Your task to perform on an android device: open app "TextNow: Call + Text Unlimited" (install if not already installed) Image 0: 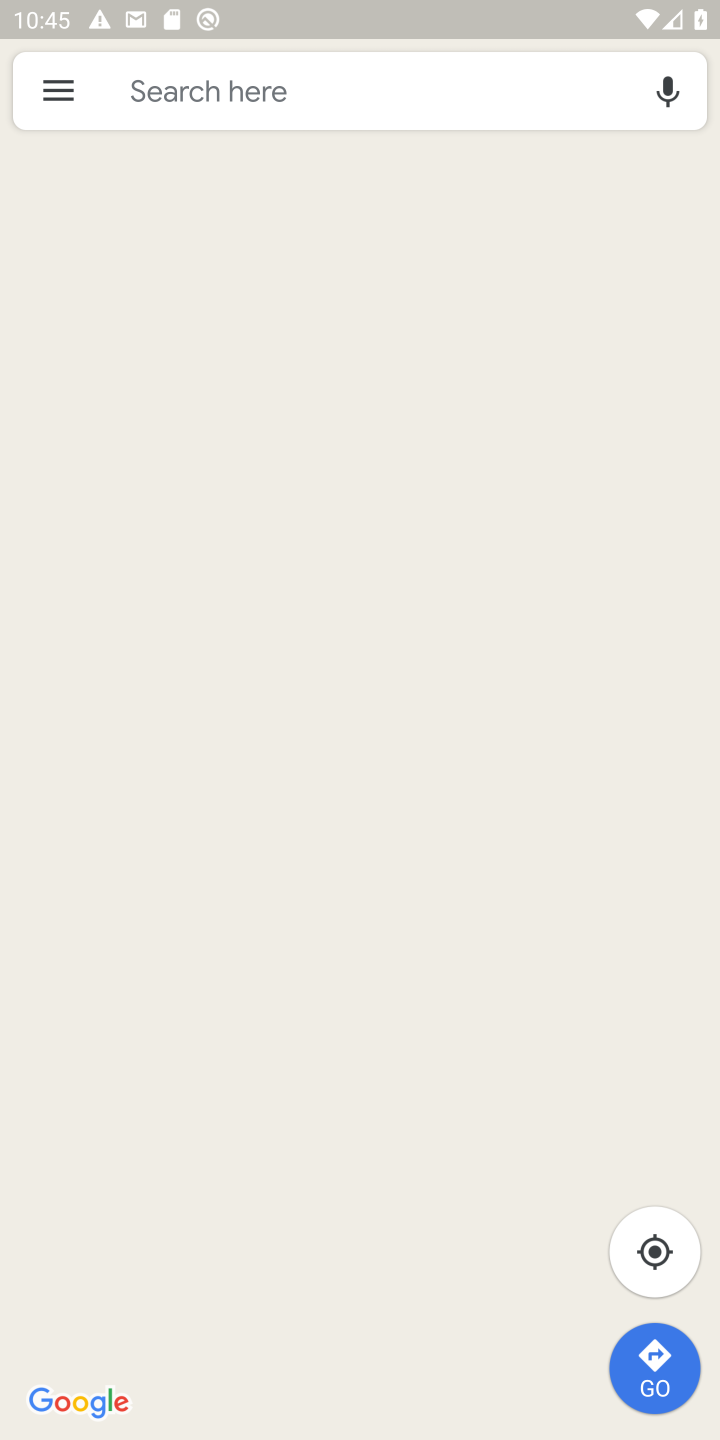
Step 0: press home button
Your task to perform on an android device: open app "TextNow: Call + Text Unlimited" (install if not already installed) Image 1: 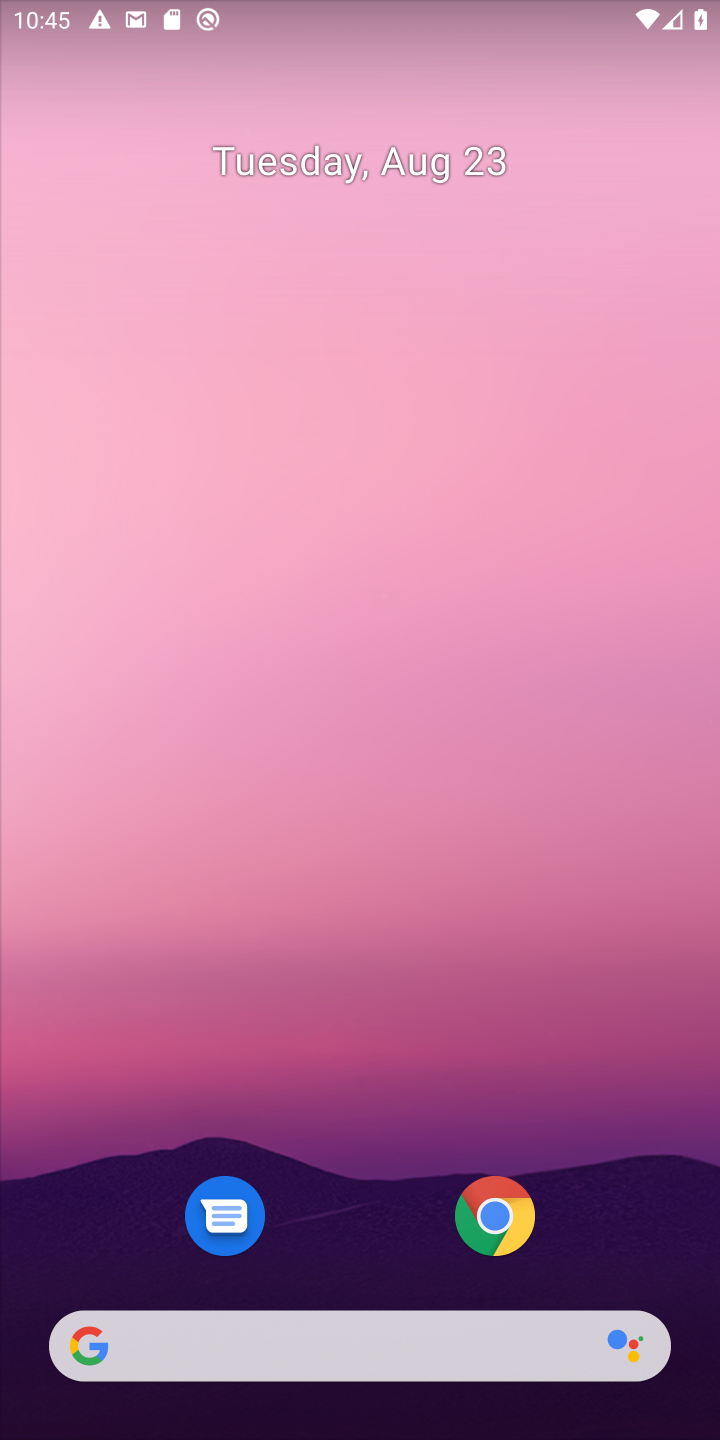
Step 1: drag from (293, 1355) to (513, 36)
Your task to perform on an android device: open app "TextNow: Call + Text Unlimited" (install if not already installed) Image 2: 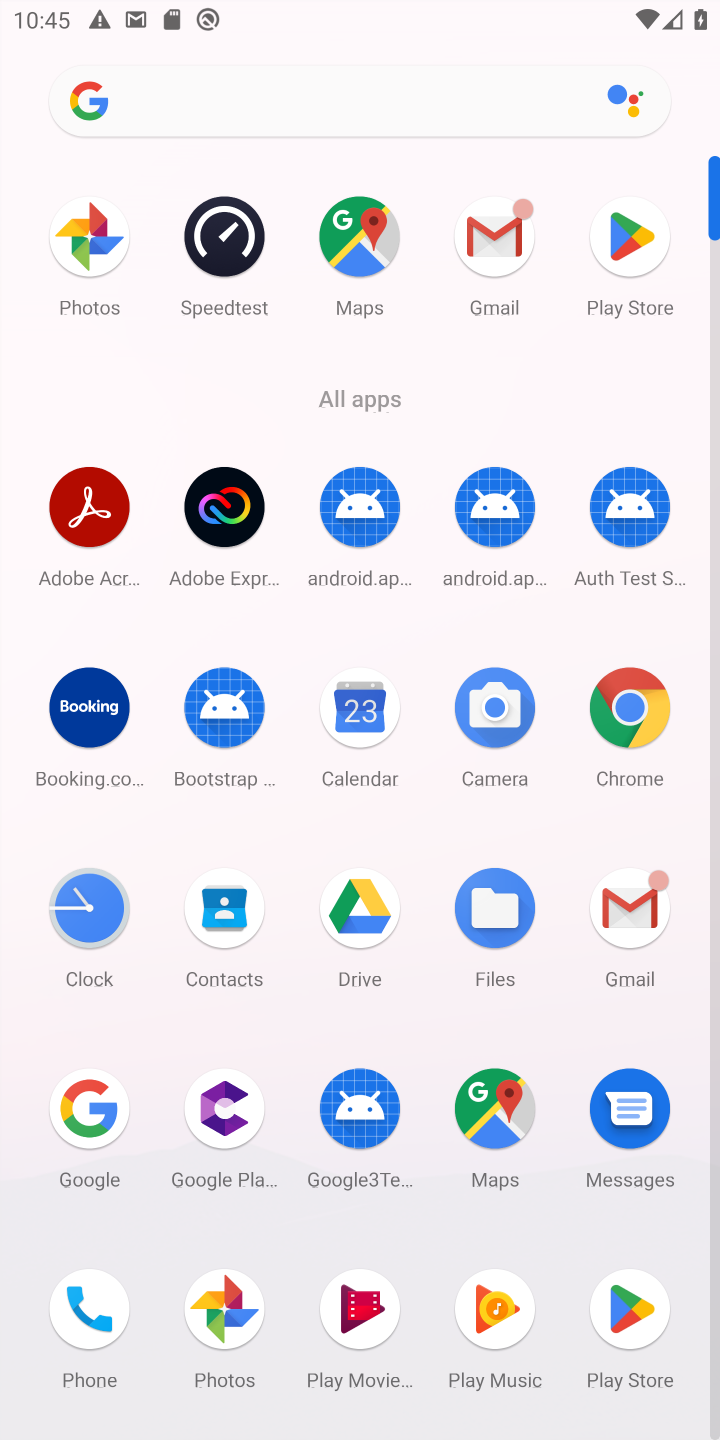
Step 2: click (632, 248)
Your task to perform on an android device: open app "TextNow: Call + Text Unlimited" (install if not already installed) Image 3: 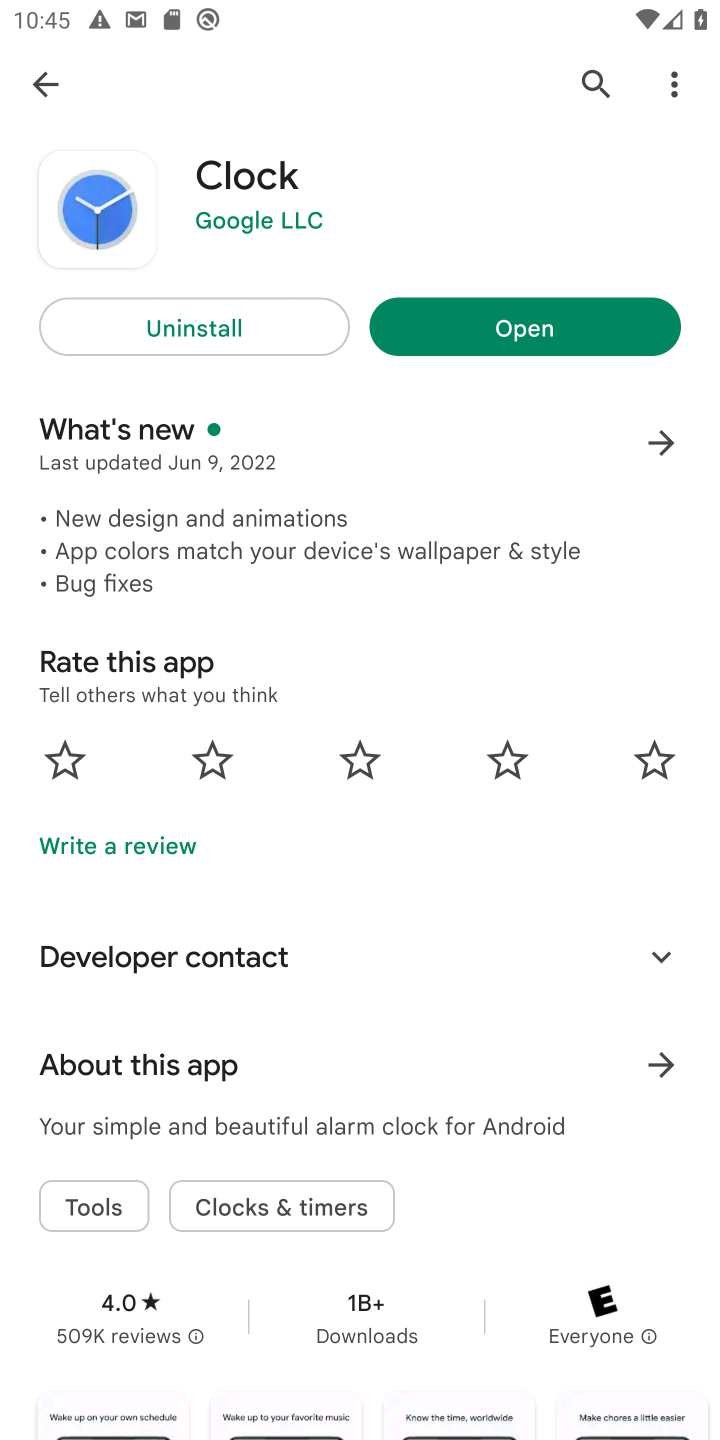
Step 3: press back button
Your task to perform on an android device: open app "TextNow: Call + Text Unlimited" (install if not already installed) Image 4: 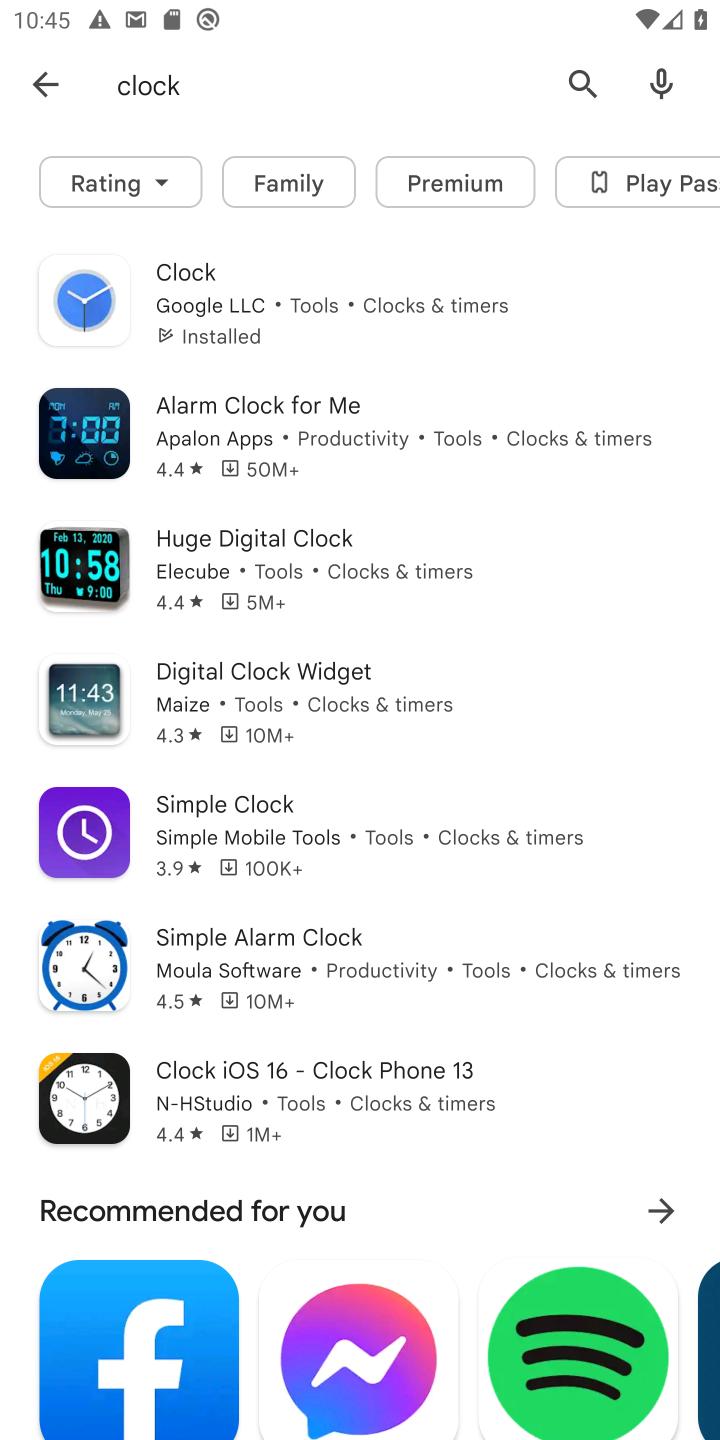
Step 4: press back button
Your task to perform on an android device: open app "TextNow: Call + Text Unlimited" (install if not already installed) Image 5: 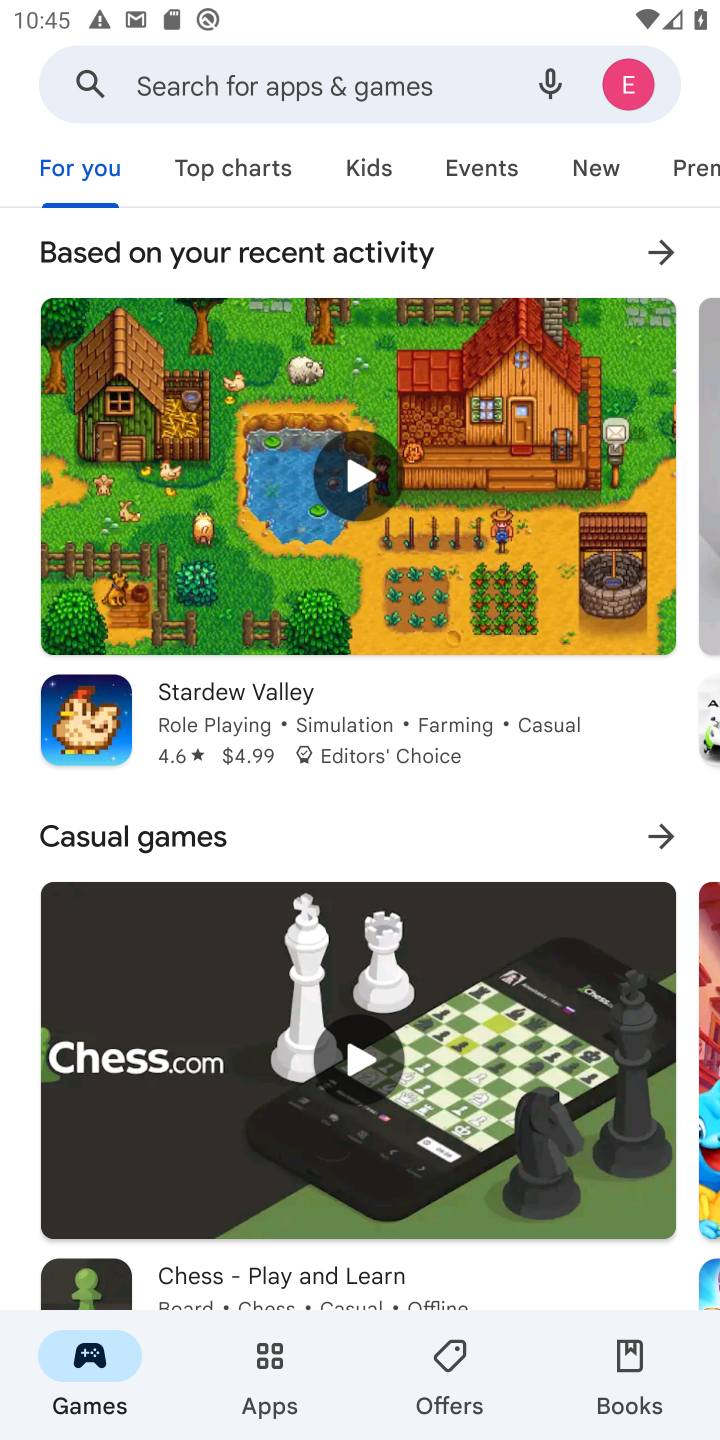
Step 5: click (423, 89)
Your task to perform on an android device: open app "TextNow: Call + Text Unlimited" (install if not already installed) Image 6: 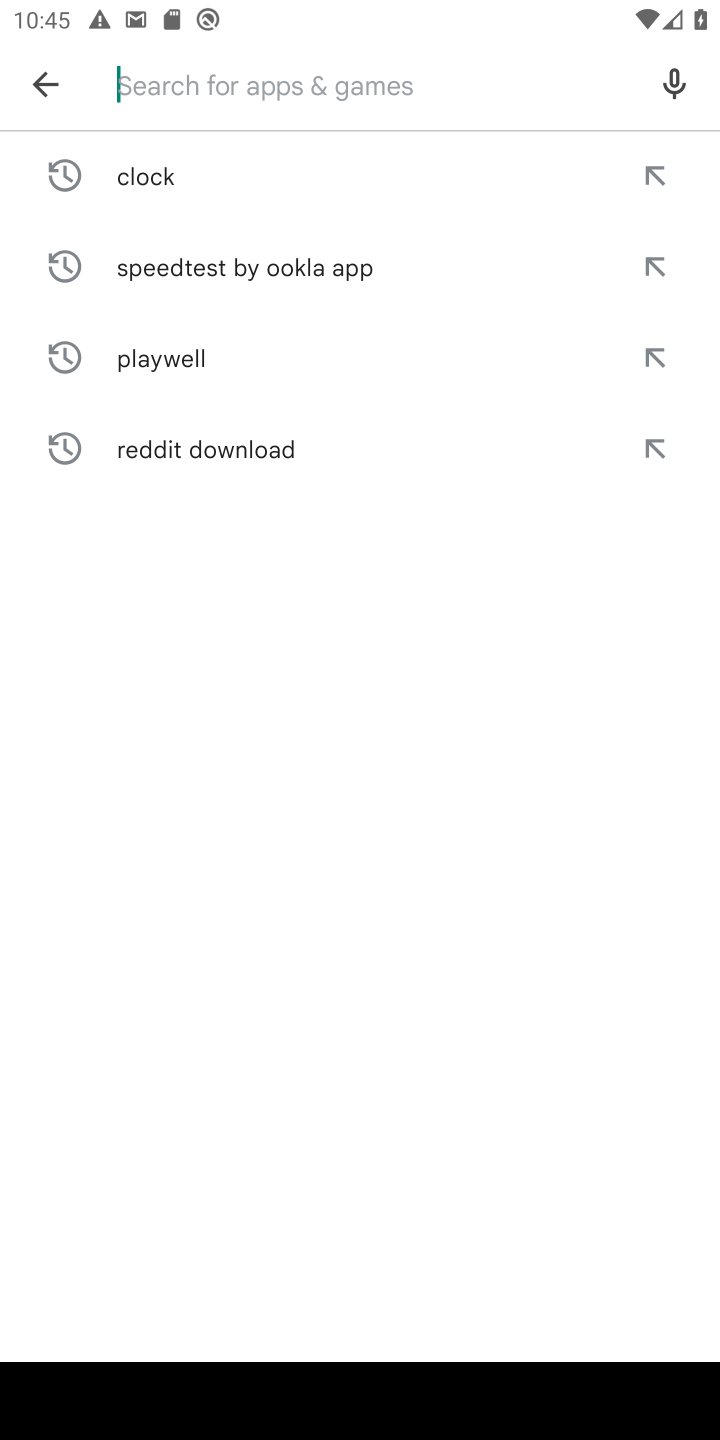
Step 6: type "TextNow: Call + Text Unlimited"
Your task to perform on an android device: open app "TextNow: Call + Text Unlimited" (install if not already installed) Image 7: 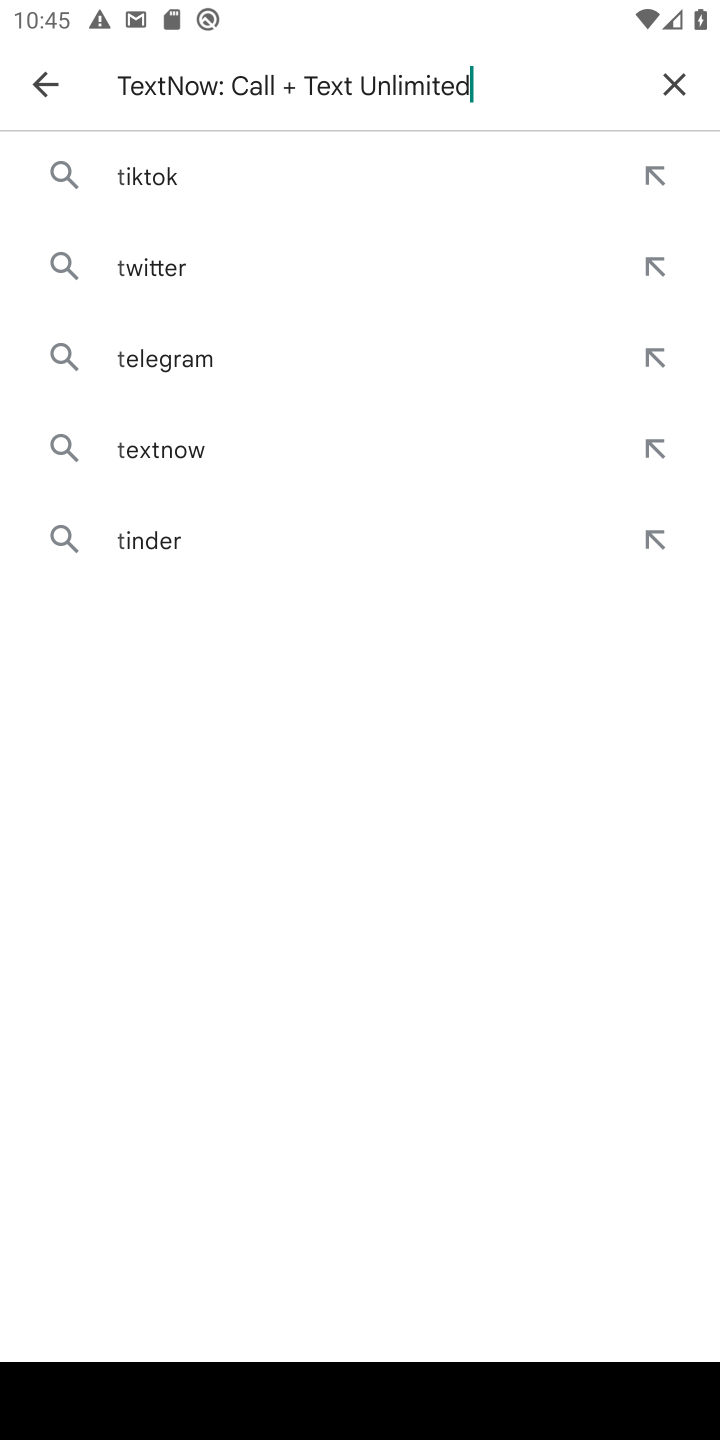
Step 7: type ""
Your task to perform on an android device: open app "TextNow: Call + Text Unlimited" (install if not already installed) Image 8: 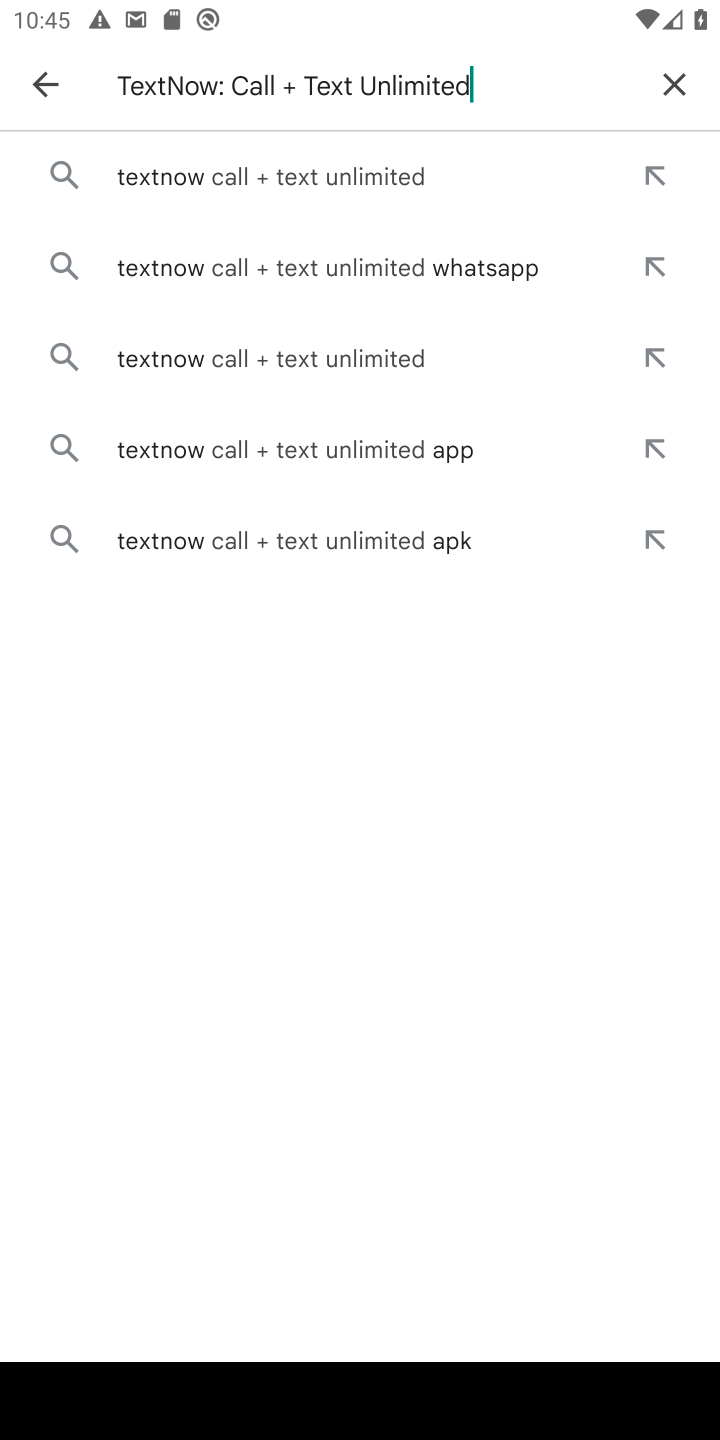
Step 8: click (239, 167)
Your task to perform on an android device: open app "TextNow: Call + Text Unlimited" (install if not already installed) Image 9: 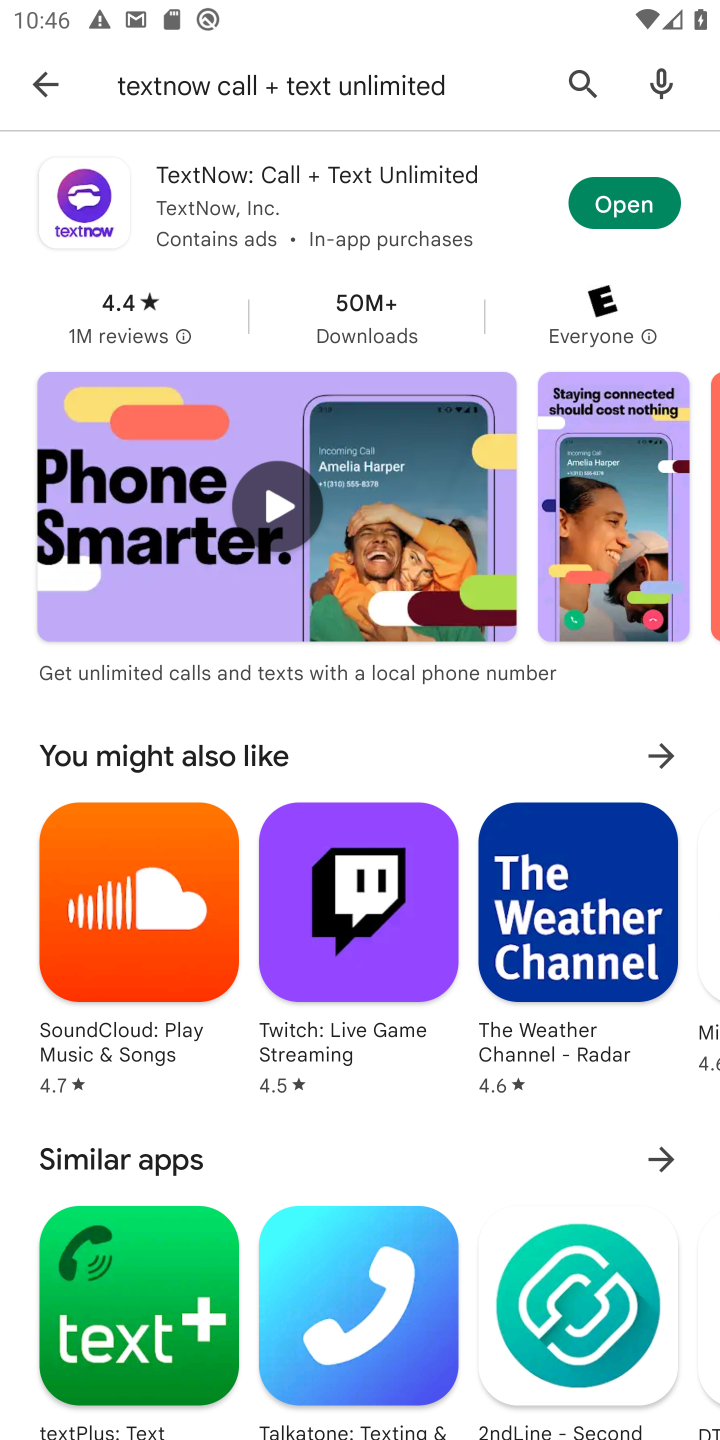
Step 9: click (612, 216)
Your task to perform on an android device: open app "TextNow: Call + Text Unlimited" (install if not already installed) Image 10: 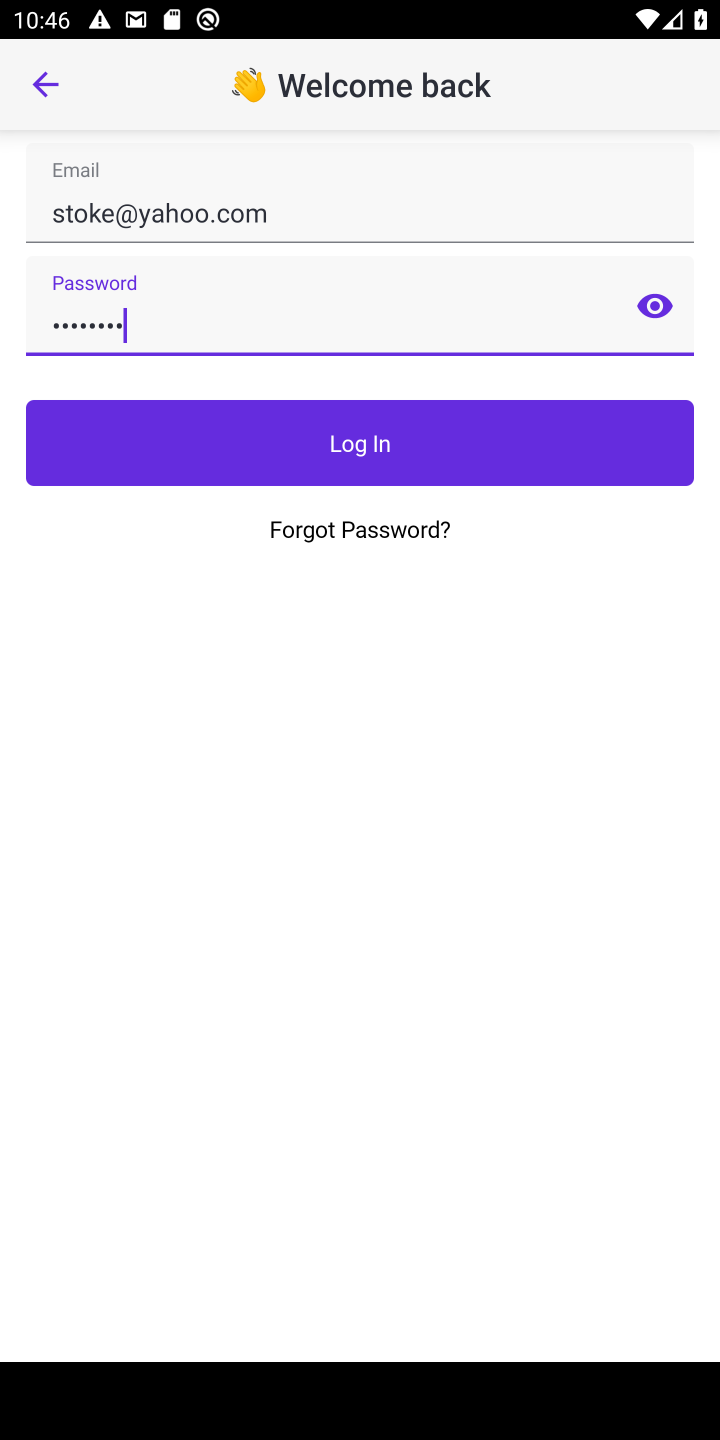
Step 10: task complete